Your task to perform on an android device: Open wifi settings Image 0: 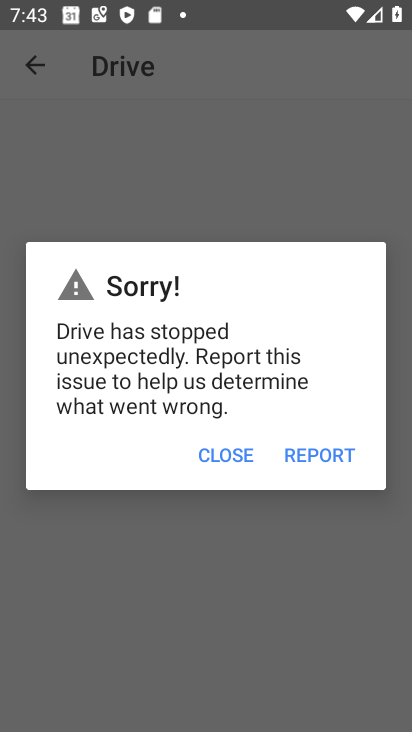
Step 0: press home button
Your task to perform on an android device: Open wifi settings Image 1: 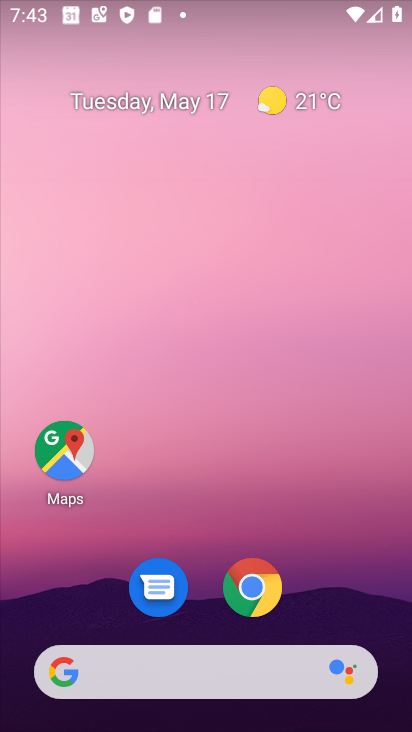
Step 1: drag from (357, 552) to (391, 123)
Your task to perform on an android device: Open wifi settings Image 2: 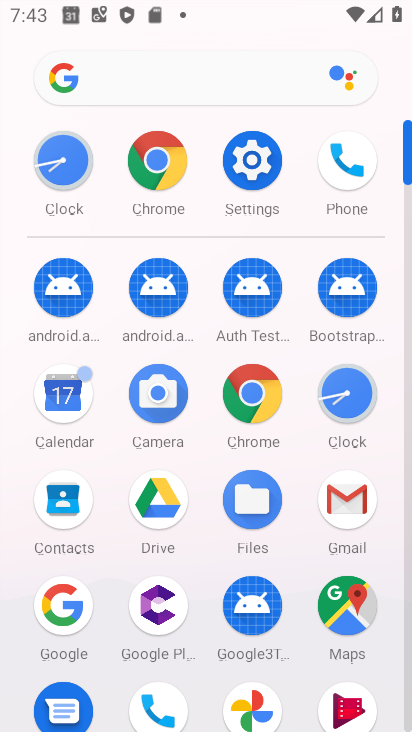
Step 2: click (268, 178)
Your task to perform on an android device: Open wifi settings Image 3: 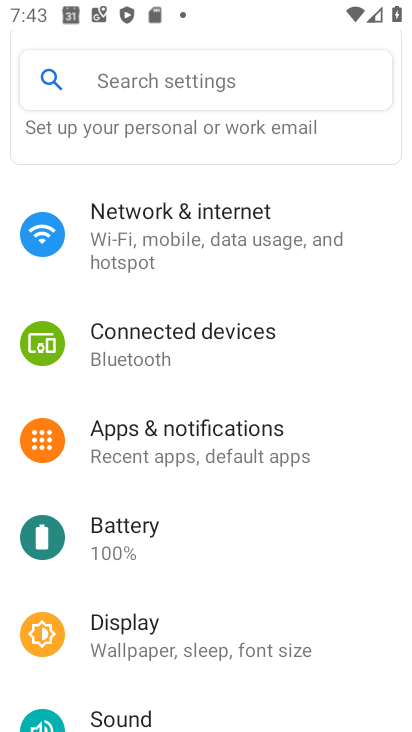
Step 3: drag from (344, 560) to (364, 442)
Your task to perform on an android device: Open wifi settings Image 4: 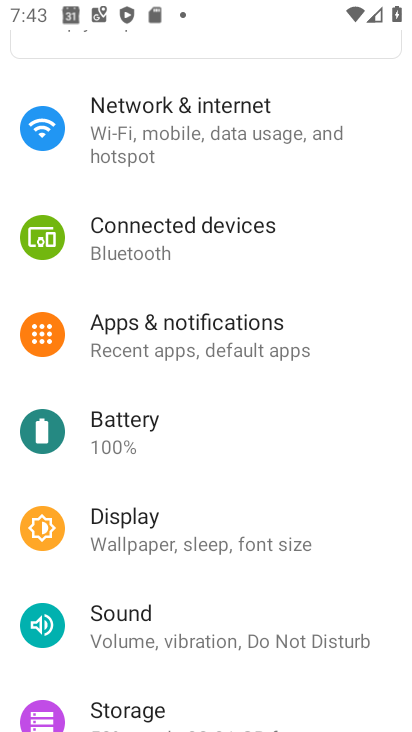
Step 4: drag from (372, 564) to (373, 435)
Your task to perform on an android device: Open wifi settings Image 5: 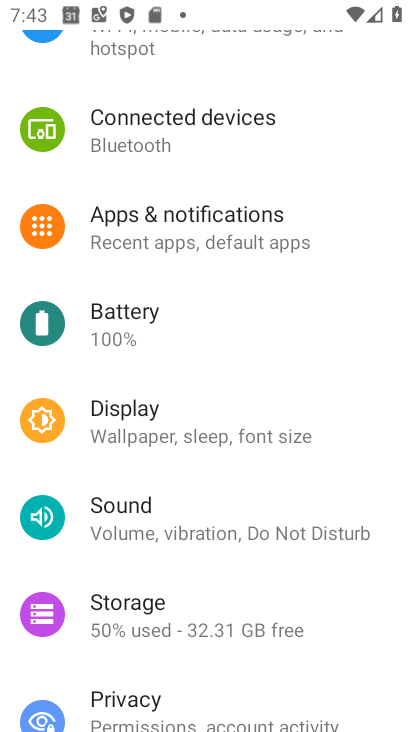
Step 5: drag from (360, 645) to (358, 486)
Your task to perform on an android device: Open wifi settings Image 6: 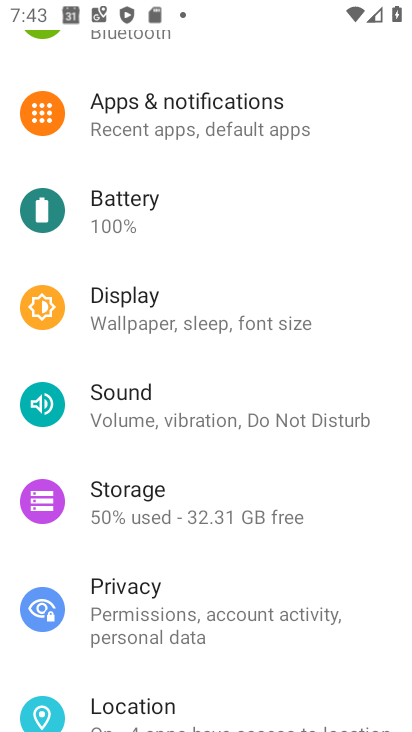
Step 6: drag from (342, 670) to (361, 518)
Your task to perform on an android device: Open wifi settings Image 7: 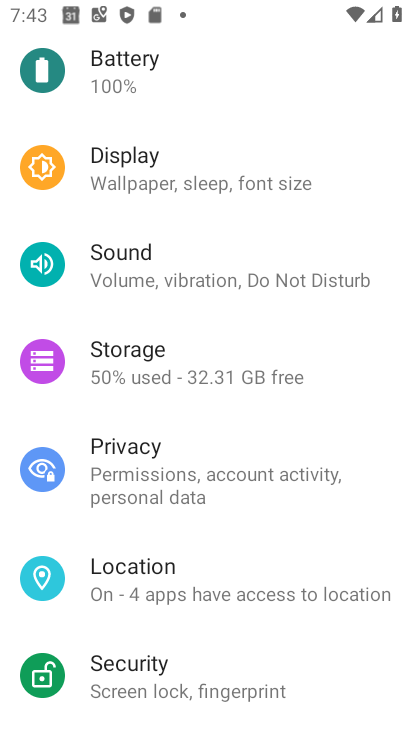
Step 7: drag from (353, 665) to (361, 518)
Your task to perform on an android device: Open wifi settings Image 8: 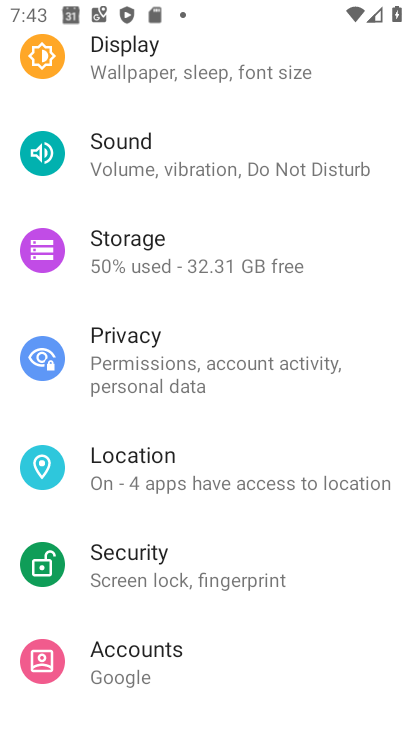
Step 8: drag from (335, 613) to (382, 420)
Your task to perform on an android device: Open wifi settings Image 9: 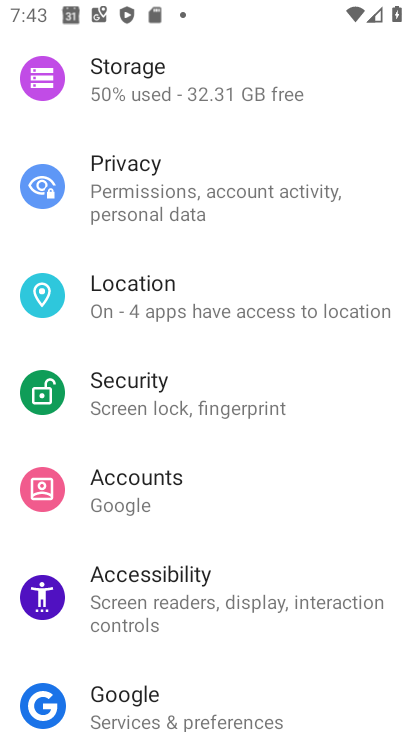
Step 9: drag from (334, 631) to (371, 449)
Your task to perform on an android device: Open wifi settings Image 10: 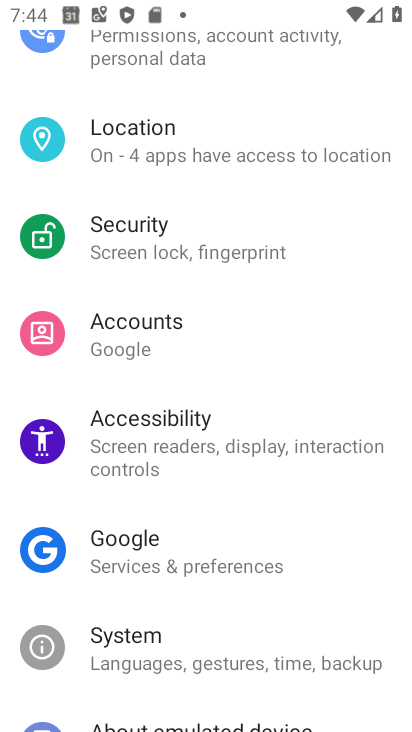
Step 10: drag from (337, 612) to (349, 416)
Your task to perform on an android device: Open wifi settings Image 11: 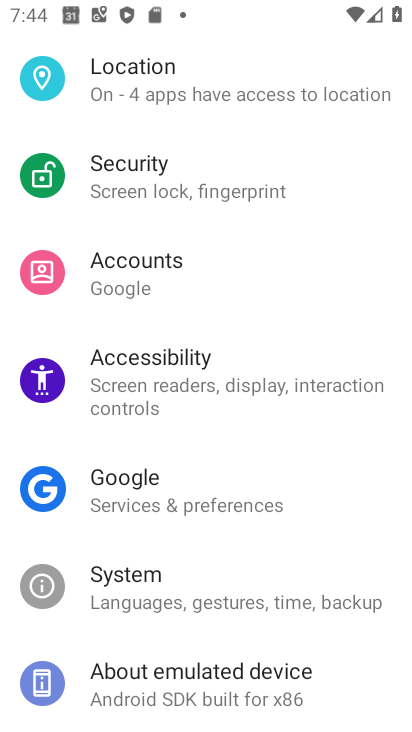
Step 11: drag from (358, 282) to (356, 416)
Your task to perform on an android device: Open wifi settings Image 12: 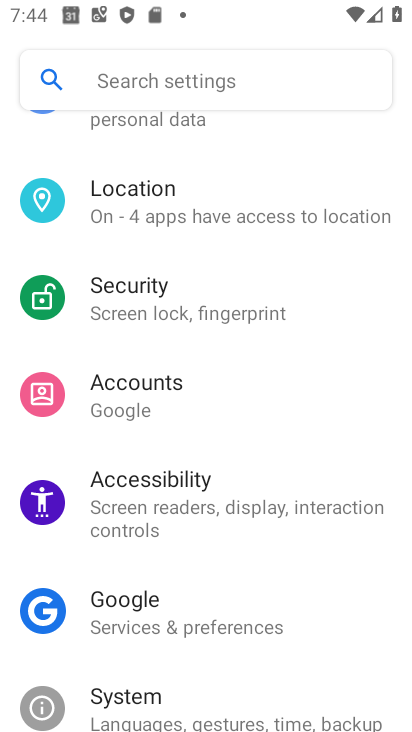
Step 12: drag from (350, 304) to (336, 416)
Your task to perform on an android device: Open wifi settings Image 13: 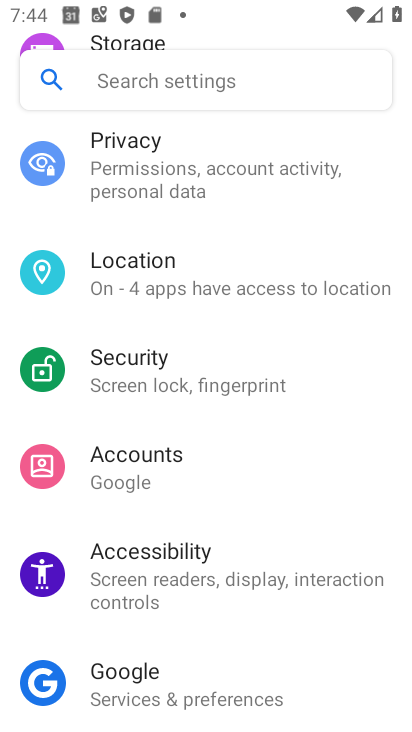
Step 13: drag from (345, 198) to (342, 360)
Your task to perform on an android device: Open wifi settings Image 14: 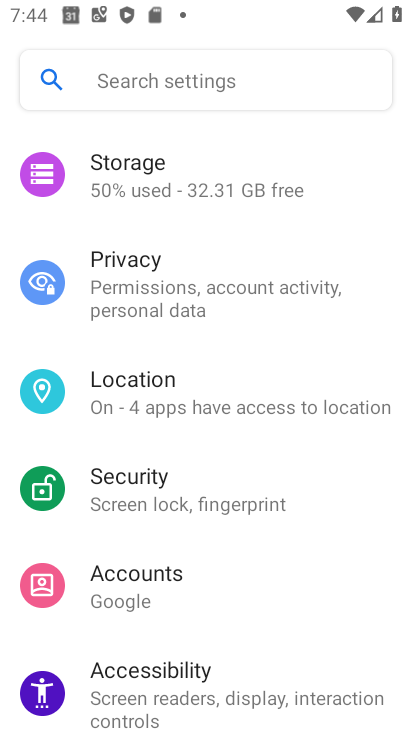
Step 14: drag from (363, 201) to (352, 360)
Your task to perform on an android device: Open wifi settings Image 15: 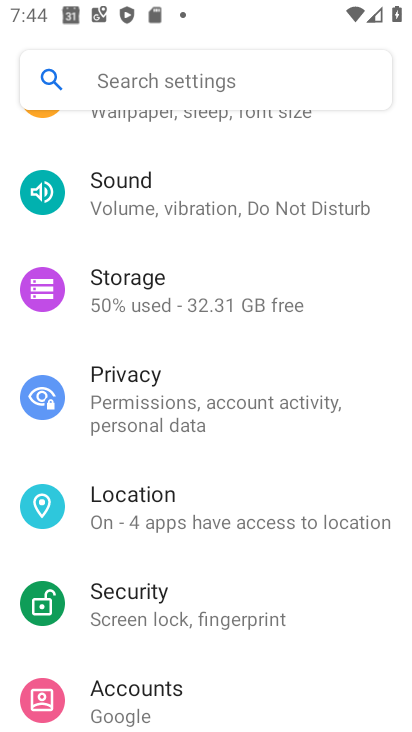
Step 15: drag from (359, 172) to (347, 306)
Your task to perform on an android device: Open wifi settings Image 16: 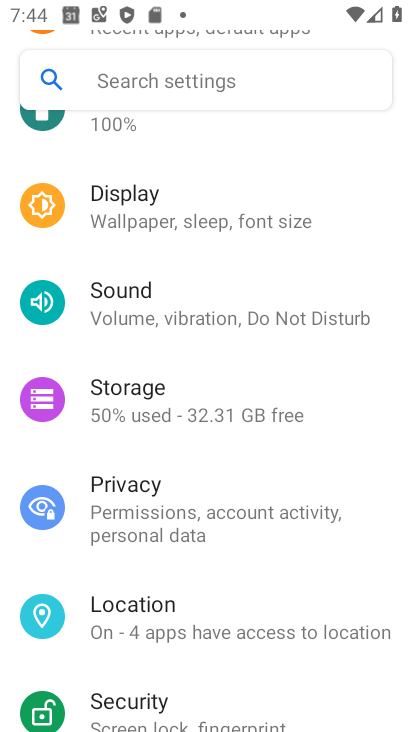
Step 16: drag from (362, 190) to (348, 300)
Your task to perform on an android device: Open wifi settings Image 17: 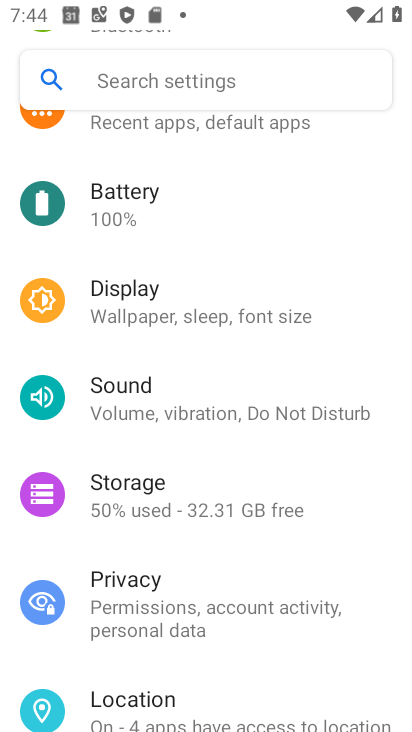
Step 17: drag from (365, 214) to (360, 288)
Your task to perform on an android device: Open wifi settings Image 18: 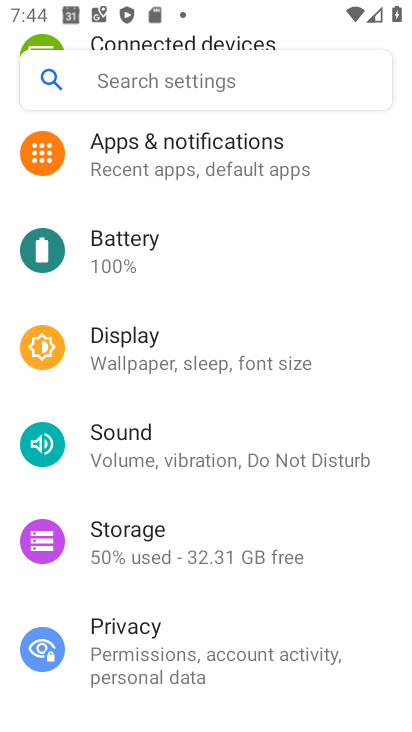
Step 18: drag from (369, 173) to (359, 285)
Your task to perform on an android device: Open wifi settings Image 19: 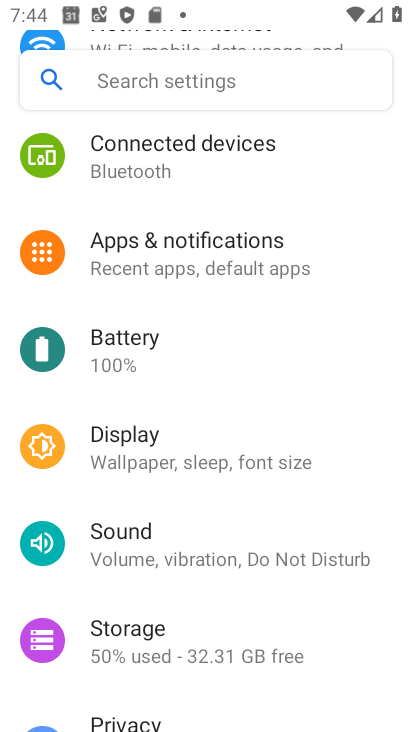
Step 19: drag from (367, 221) to (363, 320)
Your task to perform on an android device: Open wifi settings Image 20: 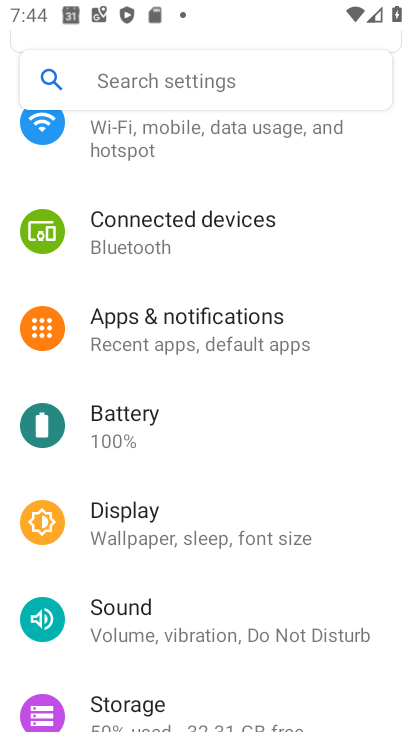
Step 20: drag from (364, 192) to (353, 312)
Your task to perform on an android device: Open wifi settings Image 21: 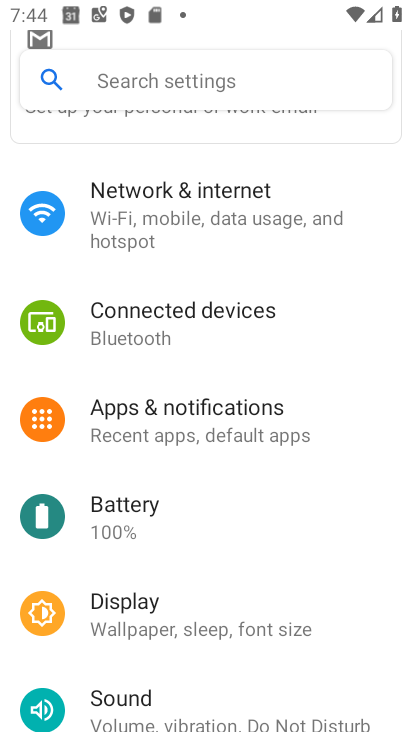
Step 21: click (301, 230)
Your task to perform on an android device: Open wifi settings Image 22: 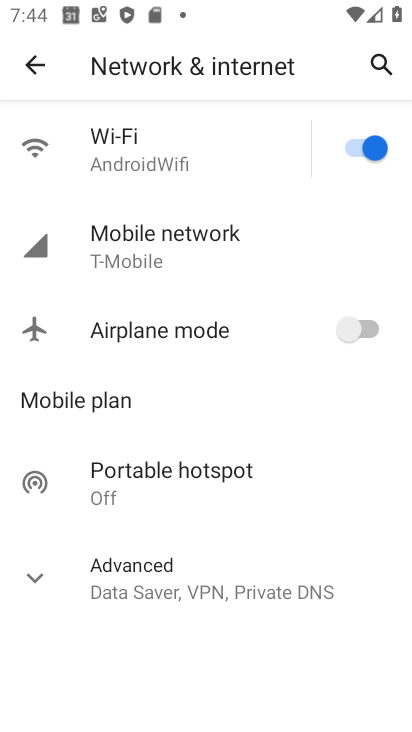
Step 22: click (148, 151)
Your task to perform on an android device: Open wifi settings Image 23: 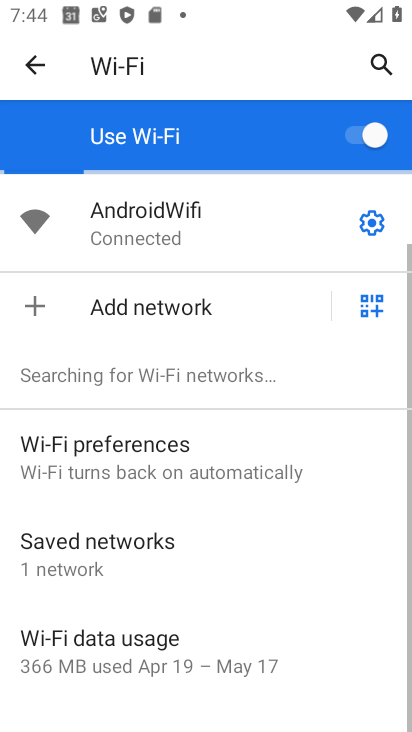
Step 23: task complete